Your task to perform on an android device: What is the recent news? Image 0: 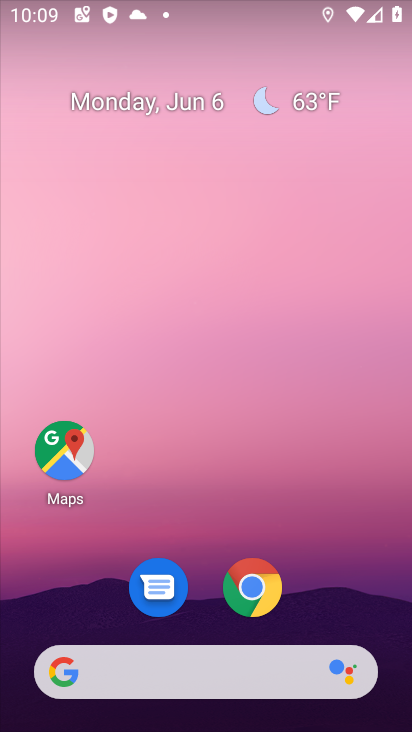
Step 0: drag from (159, 624) to (173, 278)
Your task to perform on an android device: What is the recent news? Image 1: 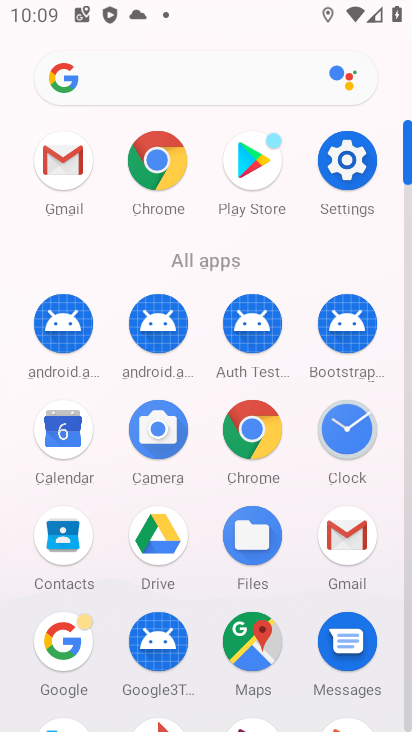
Step 1: click (60, 644)
Your task to perform on an android device: What is the recent news? Image 2: 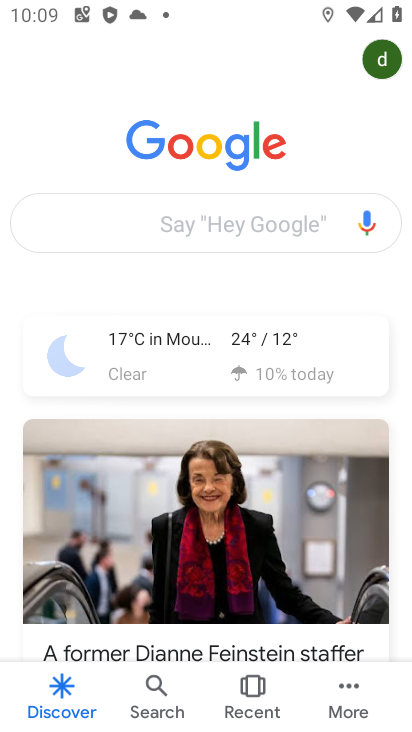
Step 2: click (214, 224)
Your task to perform on an android device: What is the recent news? Image 3: 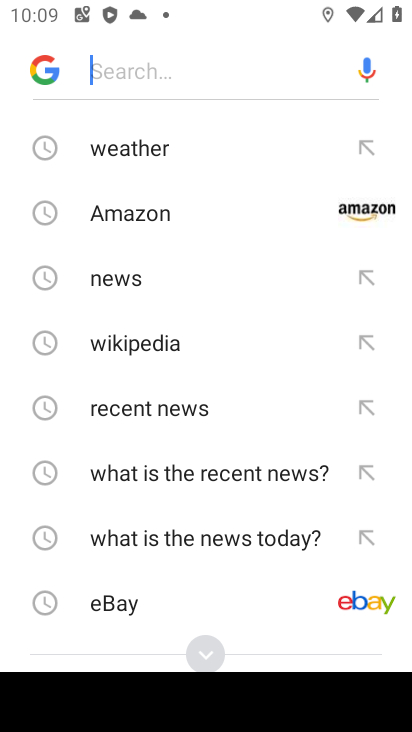
Step 3: click (124, 412)
Your task to perform on an android device: What is the recent news? Image 4: 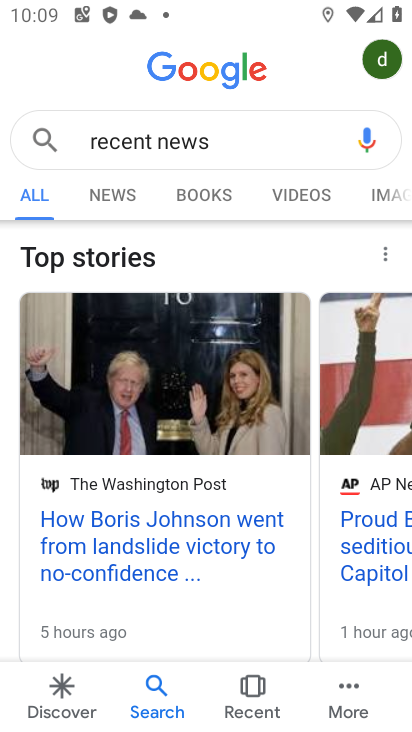
Step 4: task complete